Your task to perform on an android device: Open privacy settings Image 0: 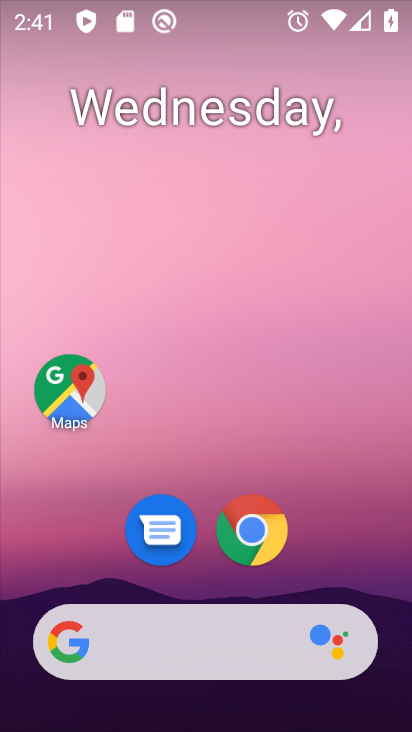
Step 0: drag from (201, 608) to (178, 116)
Your task to perform on an android device: Open privacy settings Image 1: 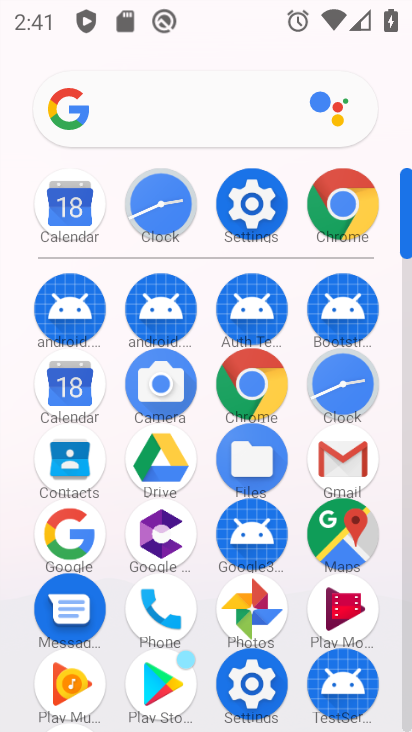
Step 1: click (263, 213)
Your task to perform on an android device: Open privacy settings Image 2: 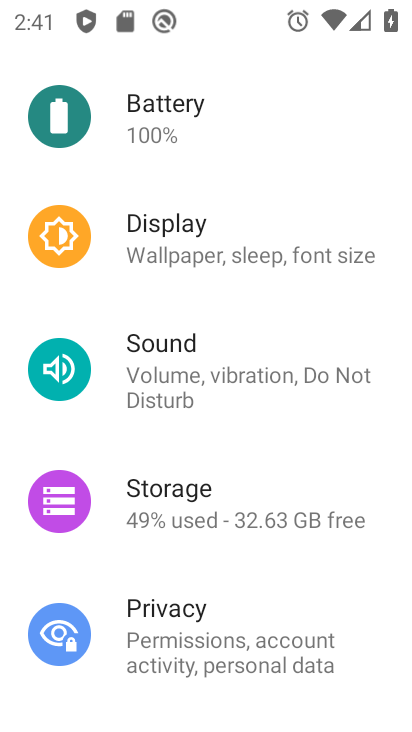
Step 2: click (198, 609)
Your task to perform on an android device: Open privacy settings Image 3: 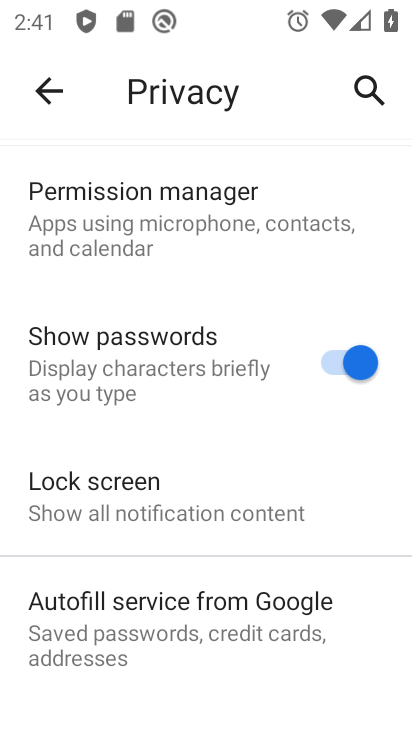
Step 3: task complete